Your task to perform on an android device: change timer sound Image 0: 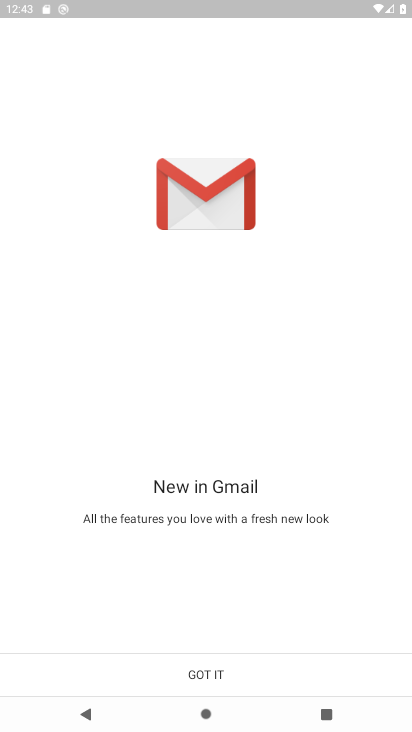
Step 0: press home button
Your task to perform on an android device: change timer sound Image 1: 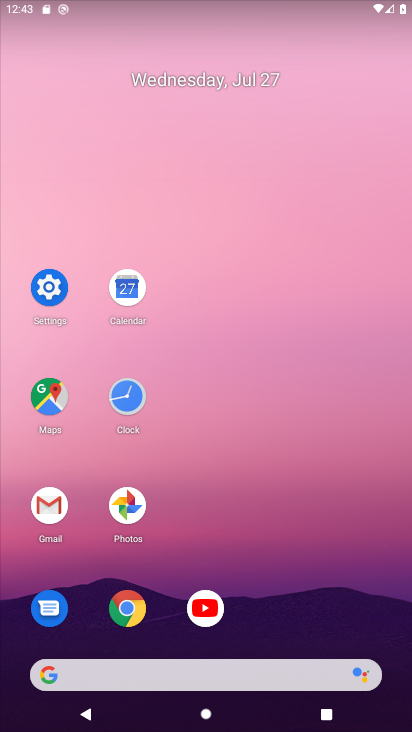
Step 1: drag from (249, 542) to (224, 2)
Your task to perform on an android device: change timer sound Image 2: 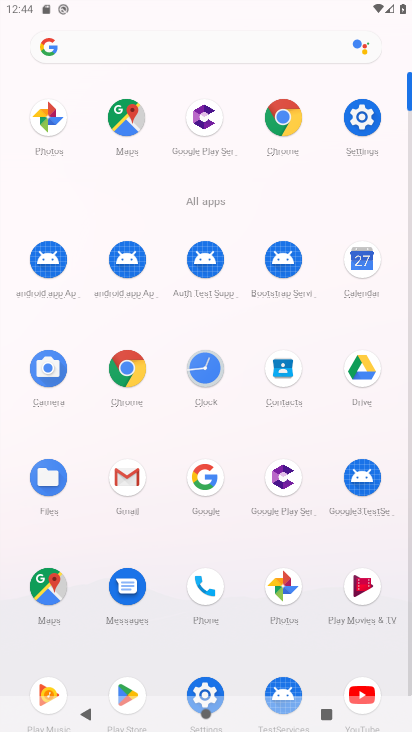
Step 2: click (207, 367)
Your task to perform on an android device: change timer sound Image 3: 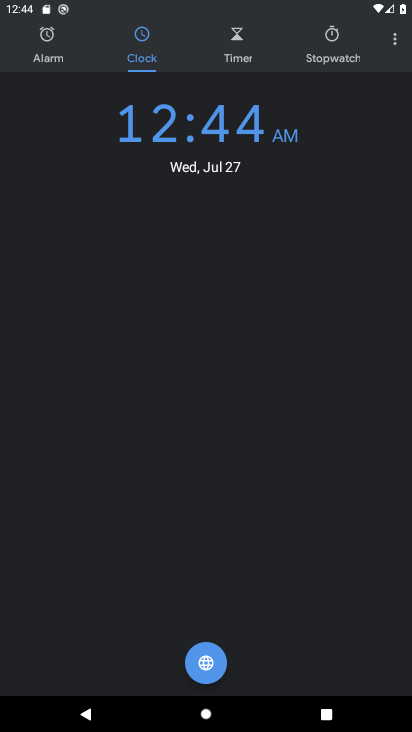
Step 3: click (394, 37)
Your task to perform on an android device: change timer sound Image 4: 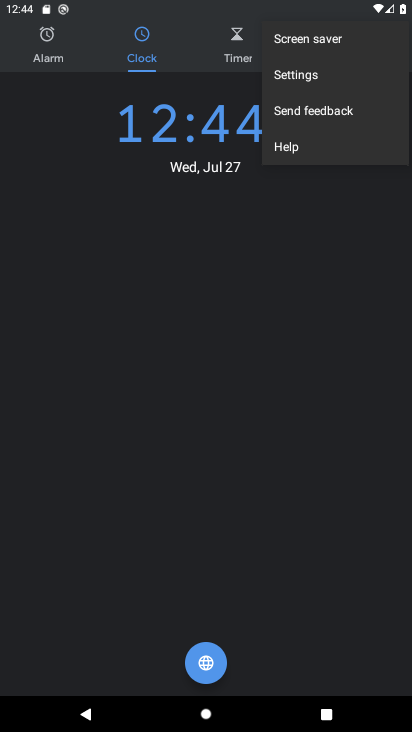
Step 4: click (296, 85)
Your task to perform on an android device: change timer sound Image 5: 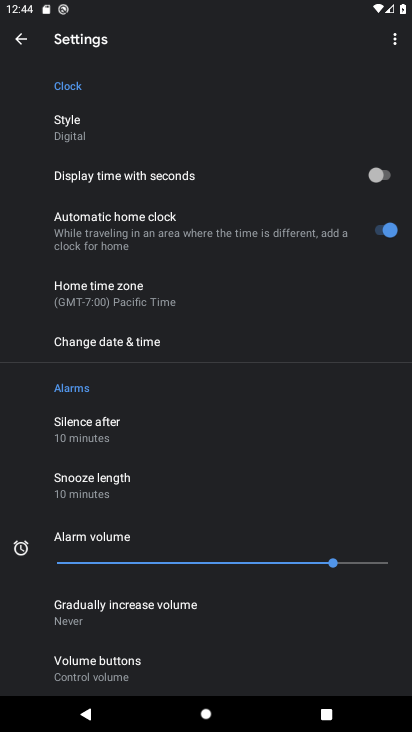
Step 5: drag from (187, 475) to (171, 75)
Your task to perform on an android device: change timer sound Image 6: 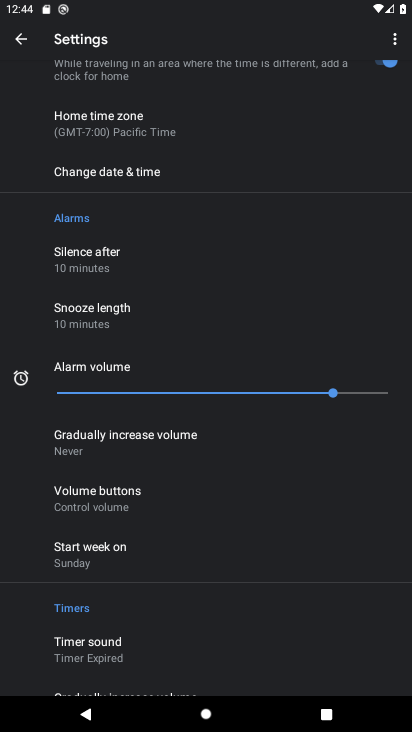
Step 6: click (88, 649)
Your task to perform on an android device: change timer sound Image 7: 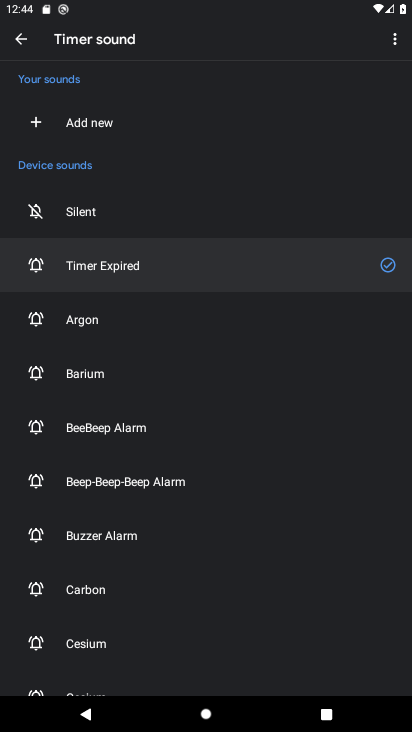
Step 7: click (78, 320)
Your task to perform on an android device: change timer sound Image 8: 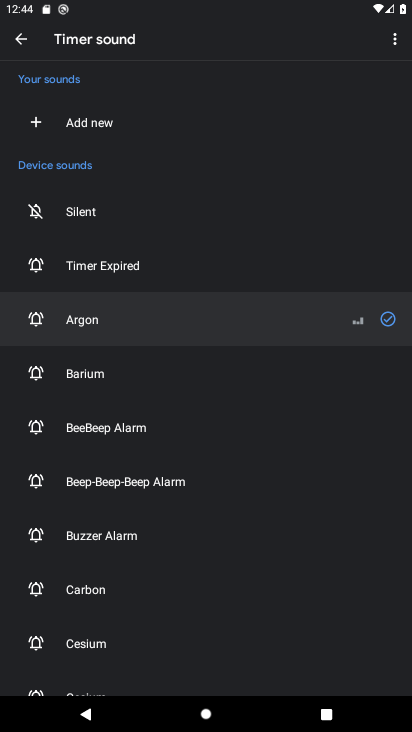
Step 8: task complete